Your task to perform on an android device: turn off notifications in google photos Image 0: 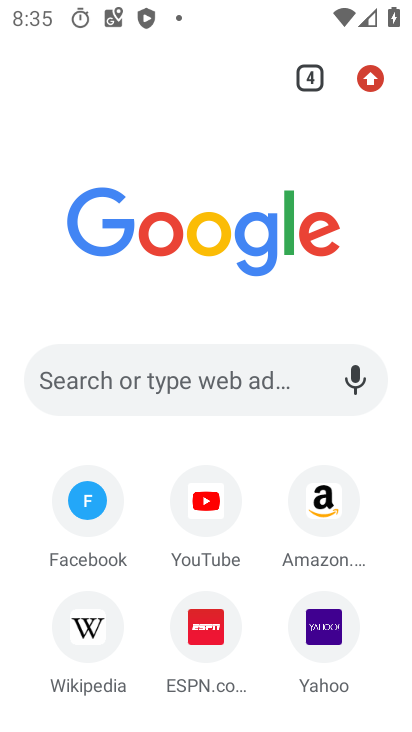
Step 0: press home button
Your task to perform on an android device: turn off notifications in google photos Image 1: 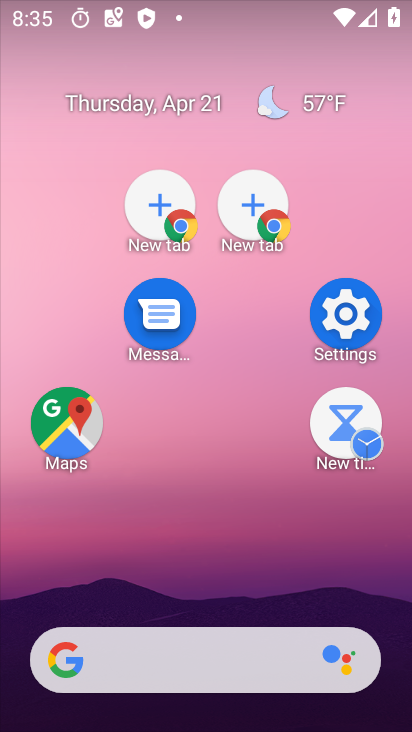
Step 1: drag from (304, 655) to (89, 15)
Your task to perform on an android device: turn off notifications in google photos Image 2: 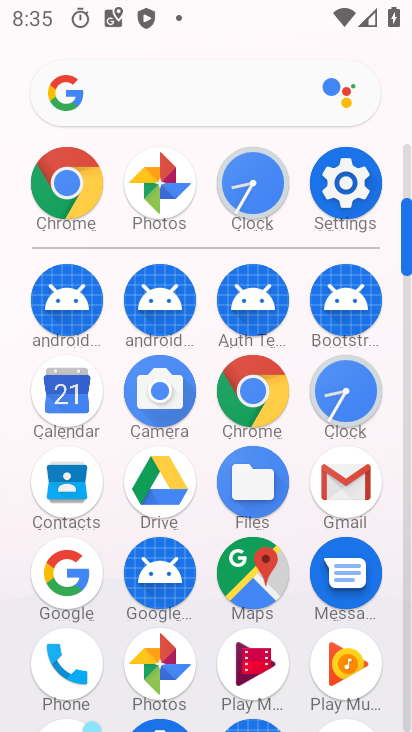
Step 2: click (158, 661)
Your task to perform on an android device: turn off notifications in google photos Image 3: 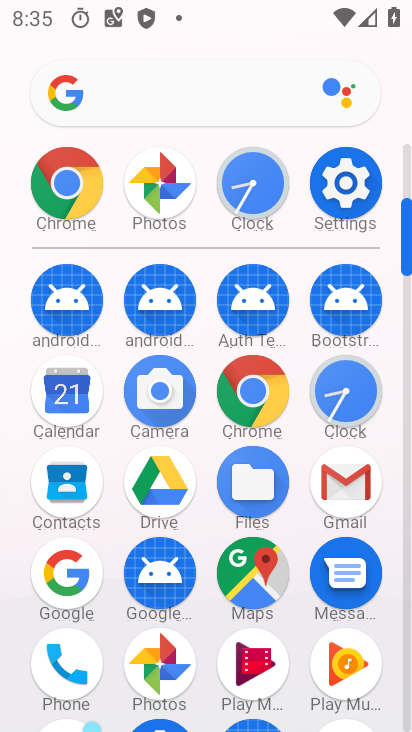
Step 3: click (158, 661)
Your task to perform on an android device: turn off notifications in google photos Image 4: 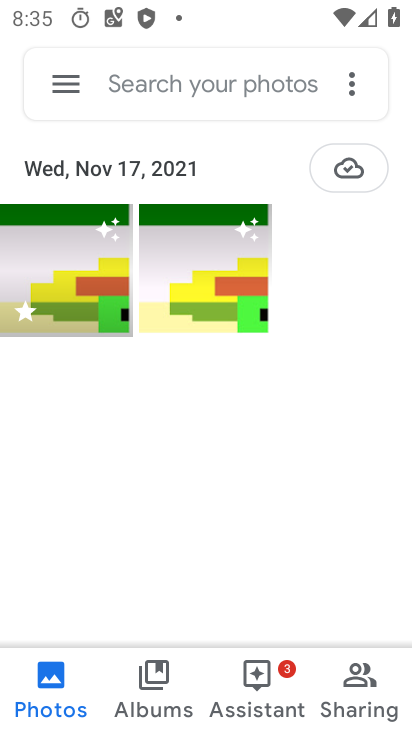
Step 4: click (106, 241)
Your task to perform on an android device: turn off notifications in google photos Image 5: 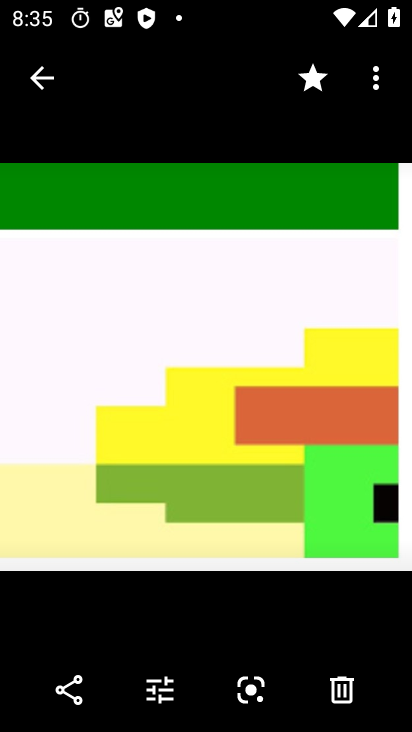
Step 5: click (195, 267)
Your task to perform on an android device: turn off notifications in google photos Image 6: 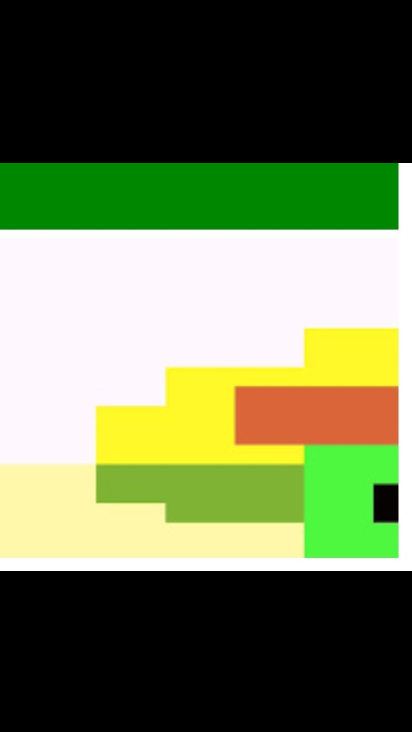
Step 6: drag from (218, 673) to (233, 480)
Your task to perform on an android device: turn off notifications in google photos Image 7: 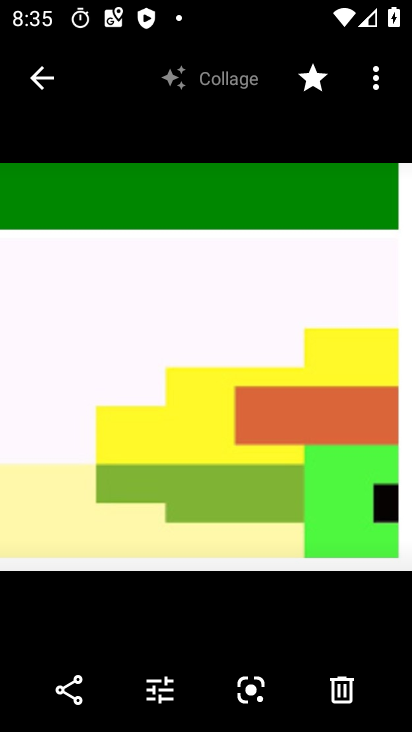
Step 7: press back button
Your task to perform on an android device: turn off notifications in google photos Image 8: 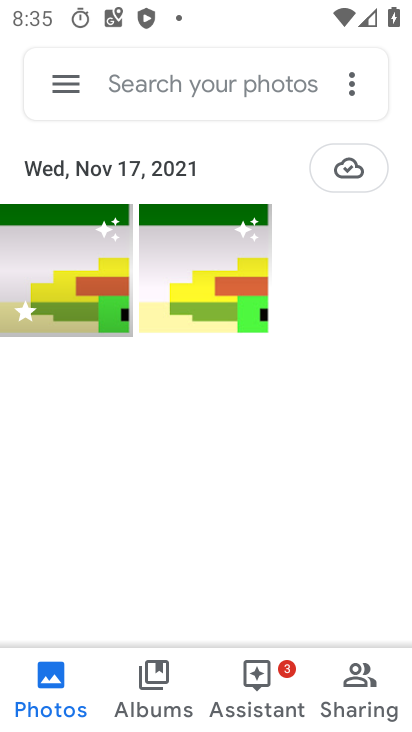
Step 8: drag from (59, 75) to (90, 16)
Your task to perform on an android device: turn off notifications in google photos Image 9: 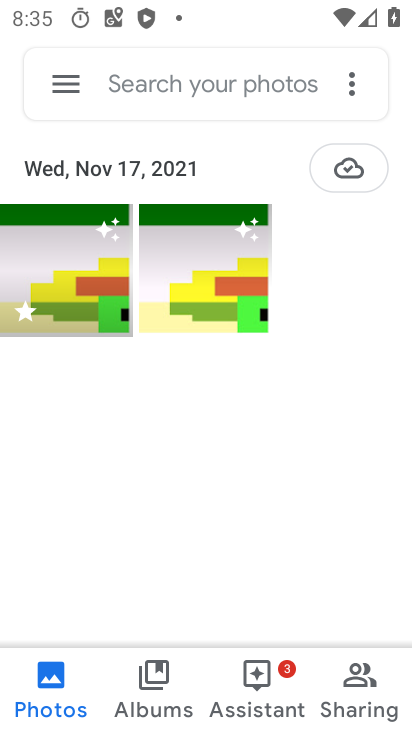
Step 9: click (66, 80)
Your task to perform on an android device: turn off notifications in google photos Image 10: 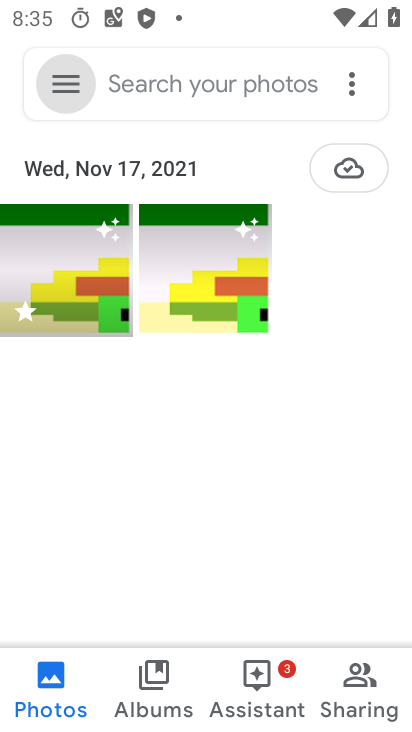
Step 10: click (66, 82)
Your task to perform on an android device: turn off notifications in google photos Image 11: 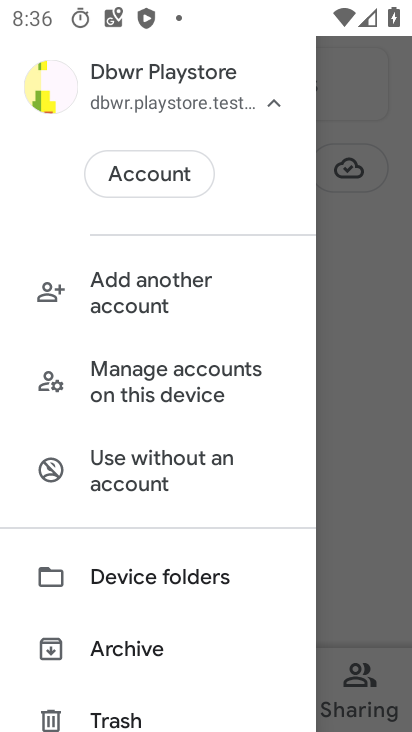
Step 11: drag from (160, 610) to (130, 294)
Your task to perform on an android device: turn off notifications in google photos Image 12: 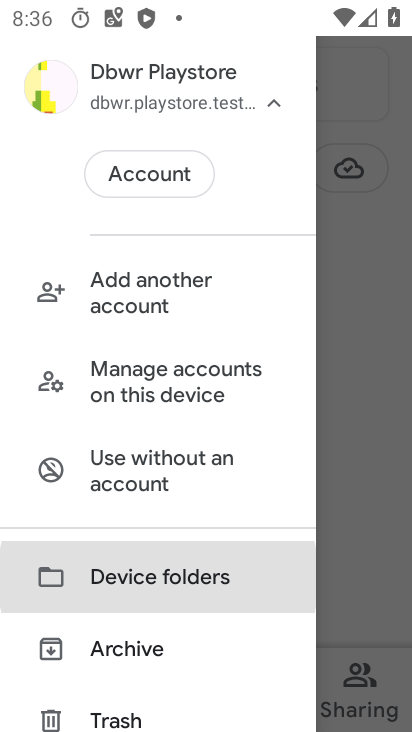
Step 12: drag from (175, 478) to (151, 150)
Your task to perform on an android device: turn off notifications in google photos Image 13: 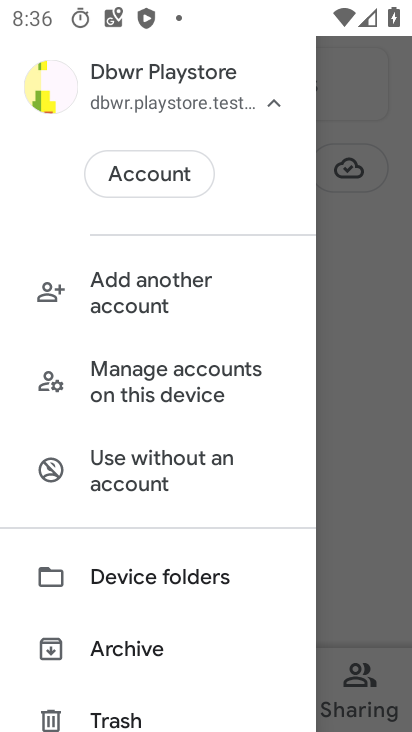
Step 13: drag from (155, 606) to (98, 181)
Your task to perform on an android device: turn off notifications in google photos Image 14: 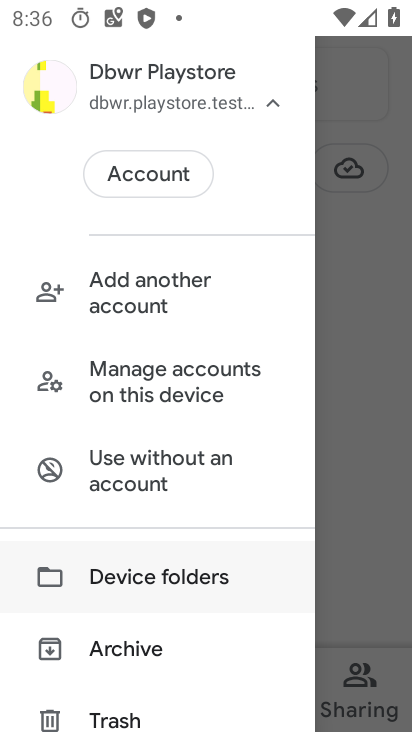
Step 14: drag from (66, 206) to (60, 79)
Your task to perform on an android device: turn off notifications in google photos Image 15: 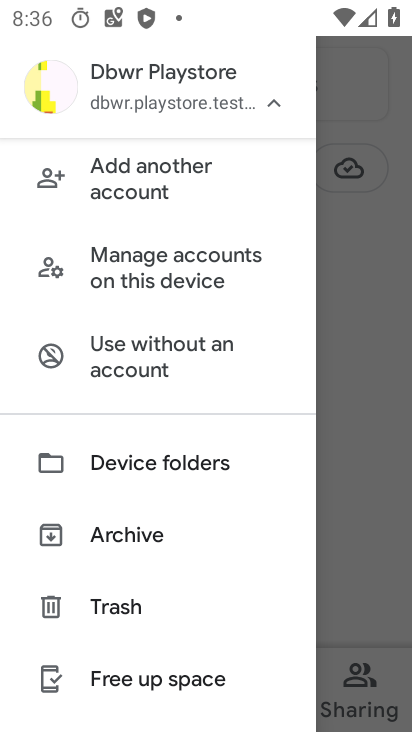
Step 15: drag from (142, 484) to (144, 229)
Your task to perform on an android device: turn off notifications in google photos Image 16: 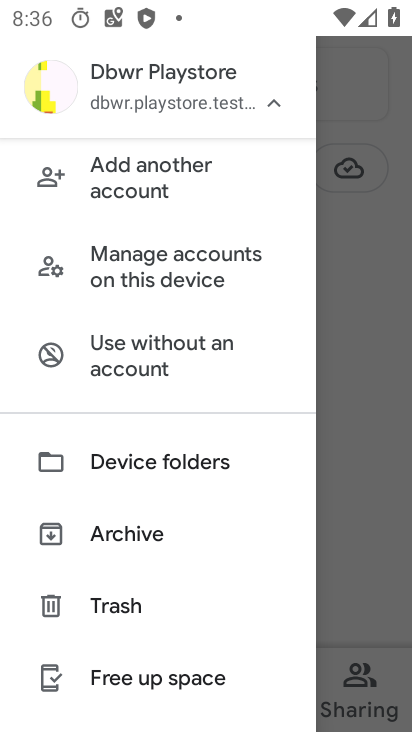
Step 16: drag from (222, 584) to (207, 214)
Your task to perform on an android device: turn off notifications in google photos Image 17: 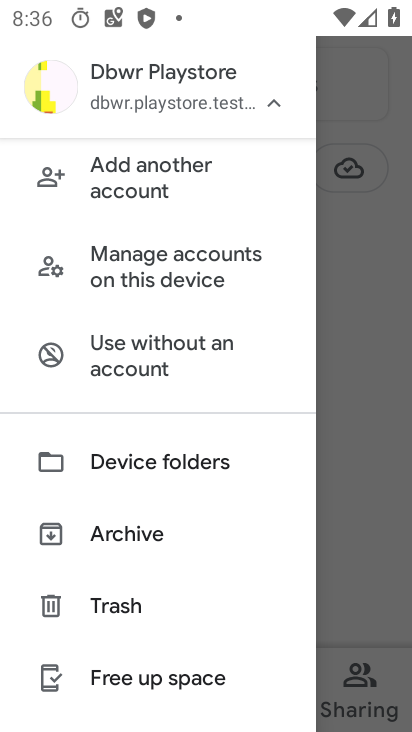
Step 17: drag from (176, 494) to (217, 216)
Your task to perform on an android device: turn off notifications in google photos Image 18: 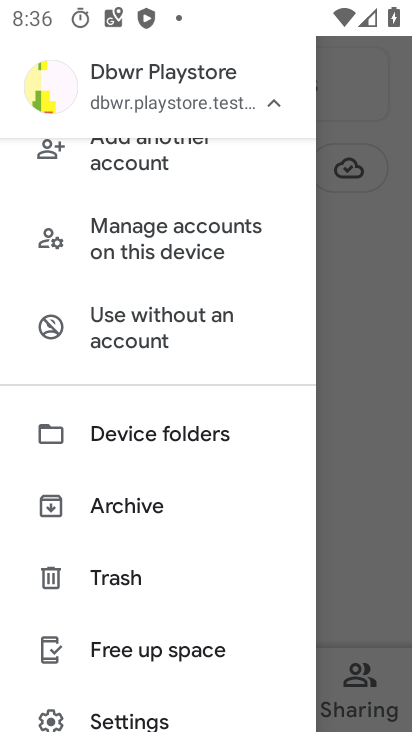
Step 18: drag from (141, 288) to (186, 523)
Your task to perform on an android device: turn off notifications in google photos Image 19: 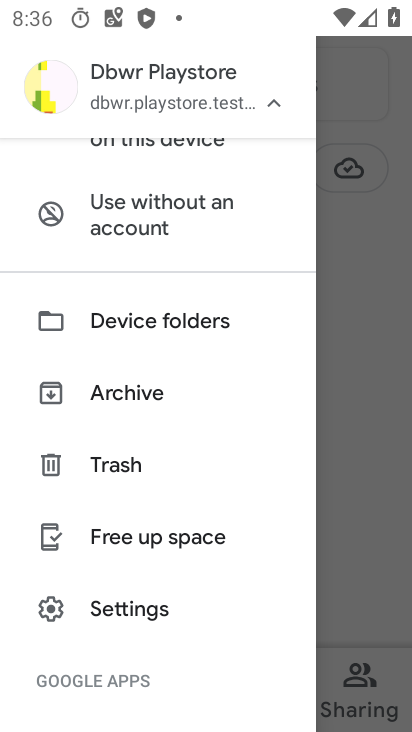
Step 19: drag from (140, 379) to (169, 501)
Your task to perform on an android device: turn off notifications in google photos Image 20: 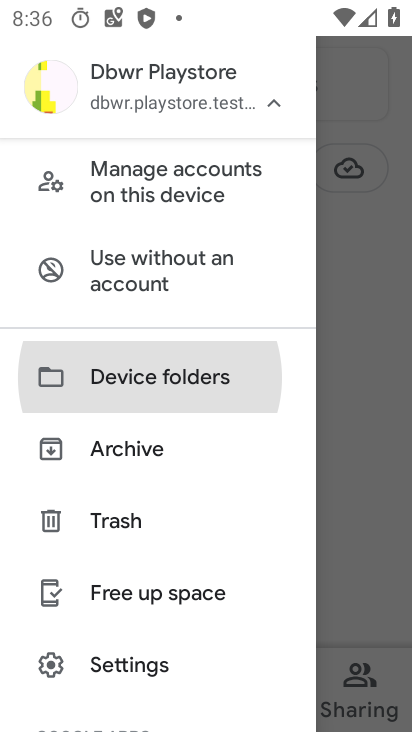
Step 20: drag from (221, 578) to (125, 486)
Your task to perform on an android device: turn off notifications in google photos Image 21: 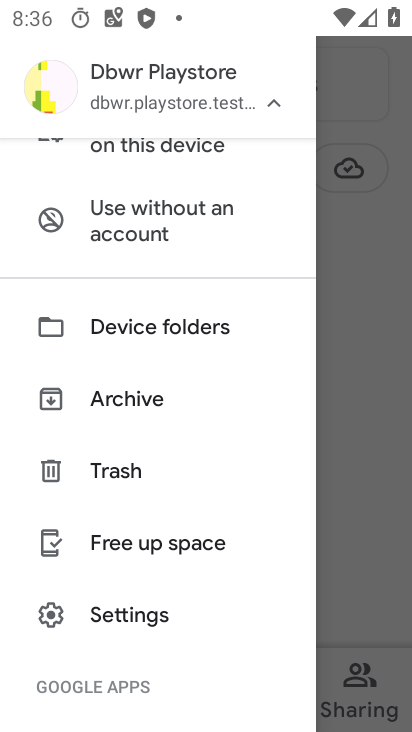
Step 21: click (119, 613)
Your task to perform on an android device: turn off notifications in google photos Image 22: 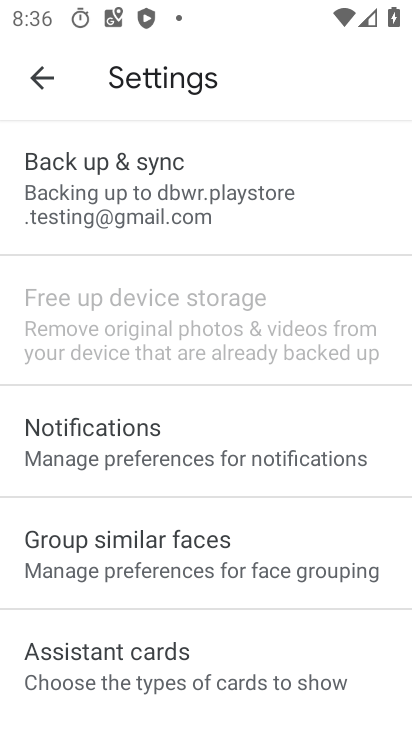
Step 22: click (108, 202)
Your task to perform on an android device: turn off notifications in google photos Image 23: 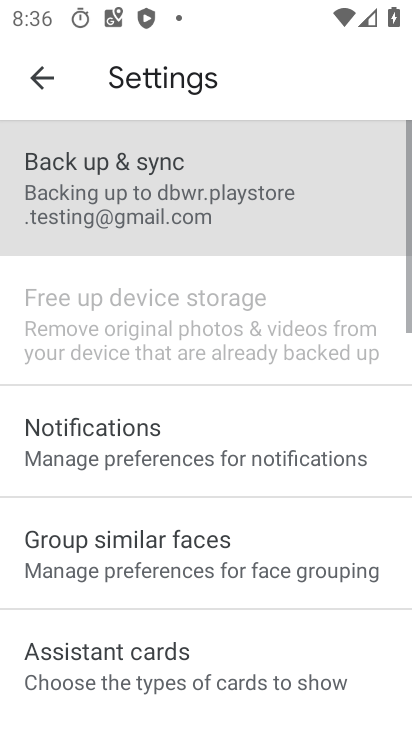
Step 23: click (108, 202)
Your task to perform on an android device: turn off notifications in google photos Image 24: 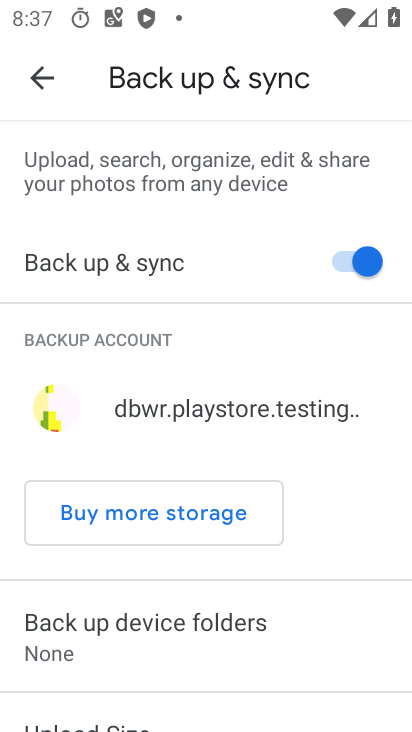
Step 24: click (32, 75)
Your task to perform on an android device: turn off notifications in google photos Image 25: 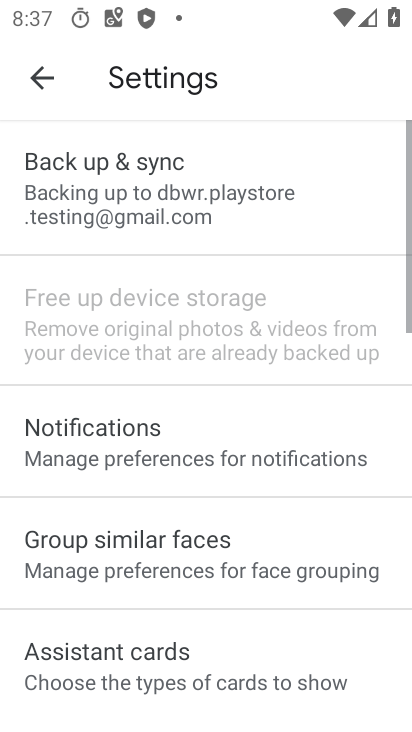
Step 25: click (121, 201)
Your task to perform on an android device: turn off notifications in google photos Image 26: 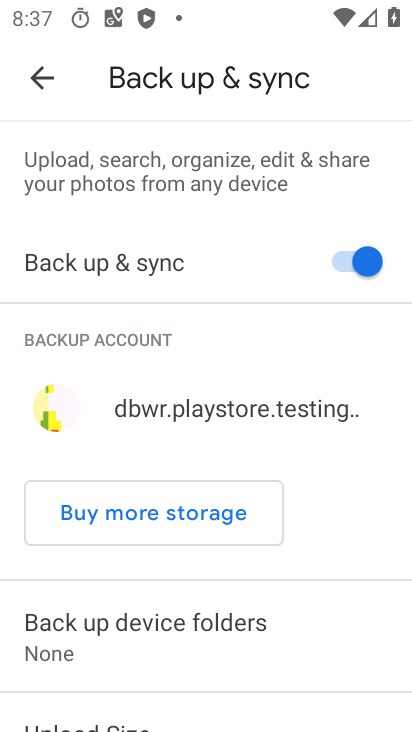
Step 26: click (38, 76)
Your task to perform on an android device: turn off notifications in google photos Image 27: 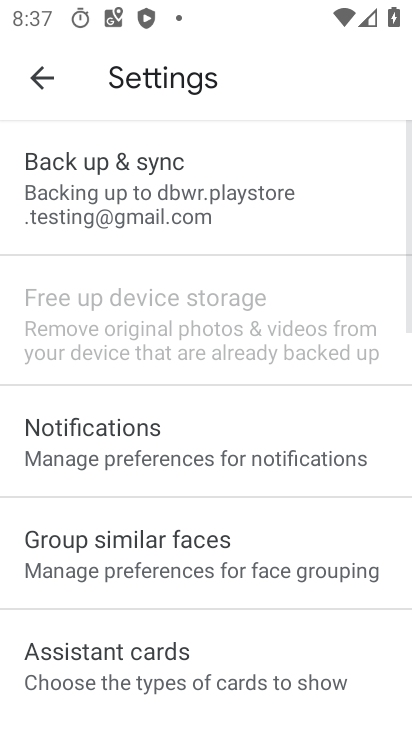
Step 27: click (123, 434)
Your task to perform on an android device: turn off notifications in google photos Image 28: 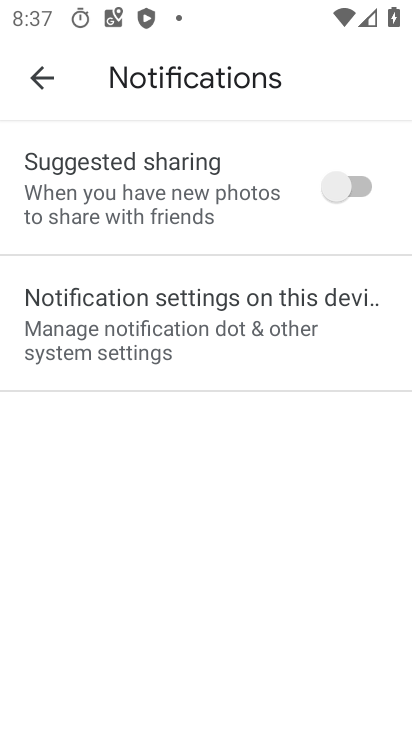
Step 28: click (105, 334)
Your task to perform on an android device: turn off notifications in google photos Image 29: 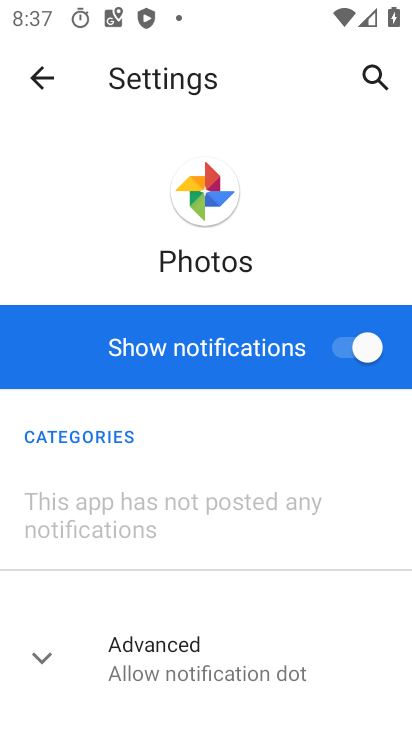
Step 29: drag from (183, 646) to (140, 338)
Your task to perform on an android device: turn off notifications in google photos Image 30: 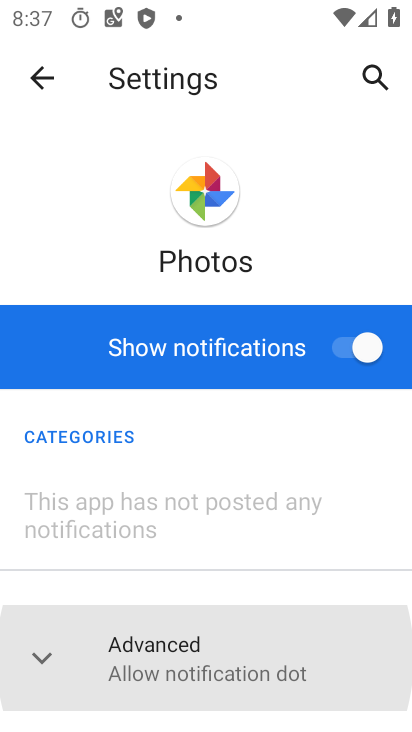
Step 30: drag from (168, 587) to (209, 274)
Your task to perform on an android device: turn off notifications in google photos Image 31: 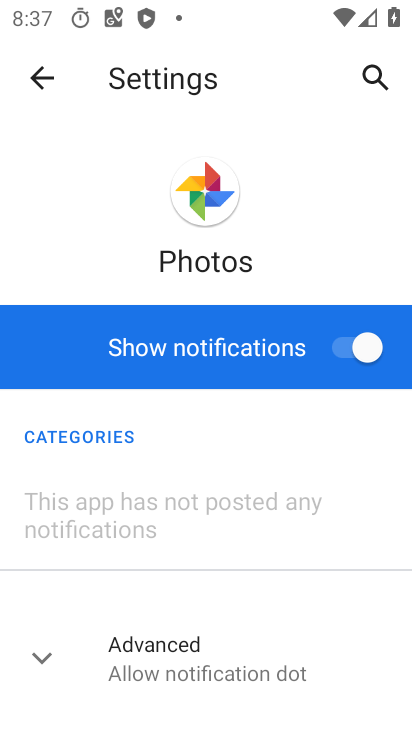
Step 31: drag from (221, 666) to (232, 350)
Your task to perform on an android device: turn off notifications in google photos Image 32: 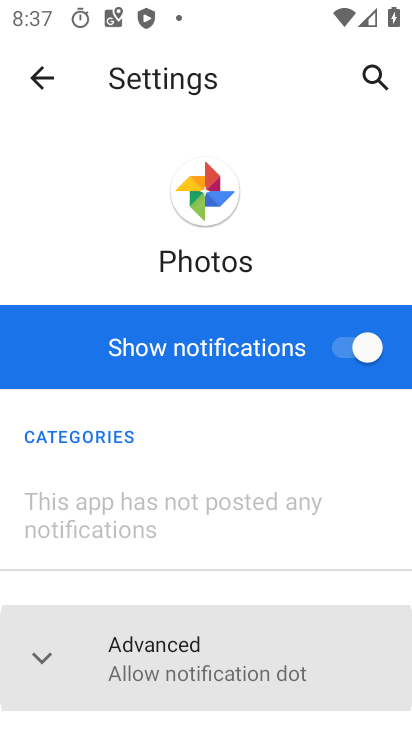
Step 32: drag from (221, 571) to (242, 264)
Your task to perform on an android device: turn off notifications in google photos Image 33: 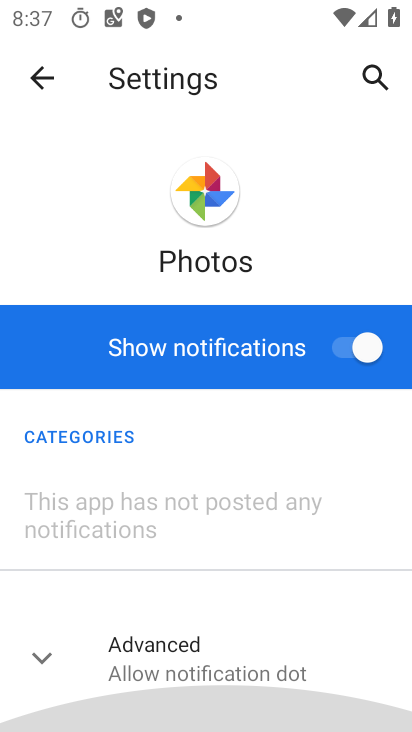
Step 33: drag from (265, 602) to (259, 413)
Your task to perform on an android device: turn off notifications in google photos Image 34: 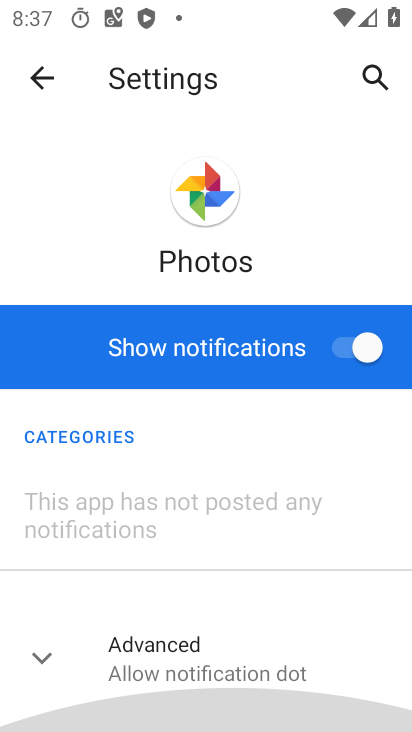
Step 34: drag from (145, 577) to (145, 323)
Your task to perform on an android device: turn off notifications in google photos Image 35: 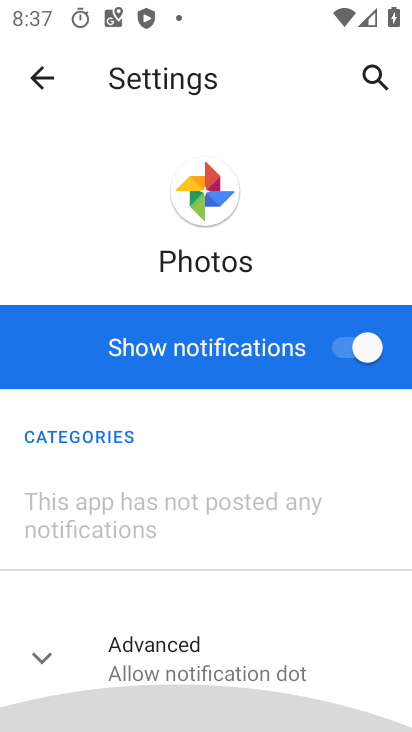
Step 35: drag from (165, 475) to (146, 292)
Your task to perform on an android device: turn off notifications in google photos Image 36: 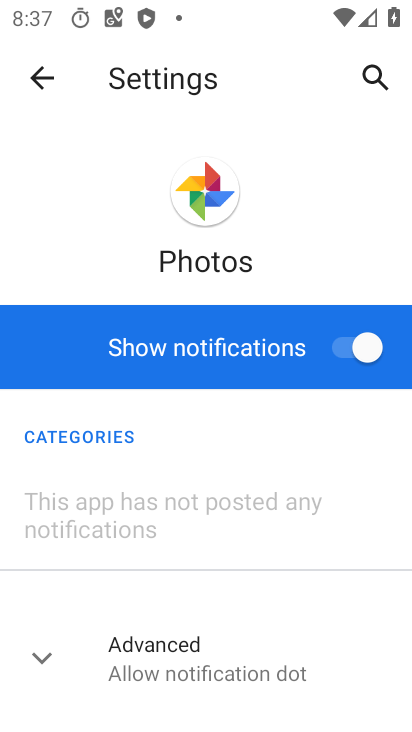
Step 36: drag from (126, 458) to (94, 224)
Your task to perform on an android device: turn off notifications in google photos Image 37: 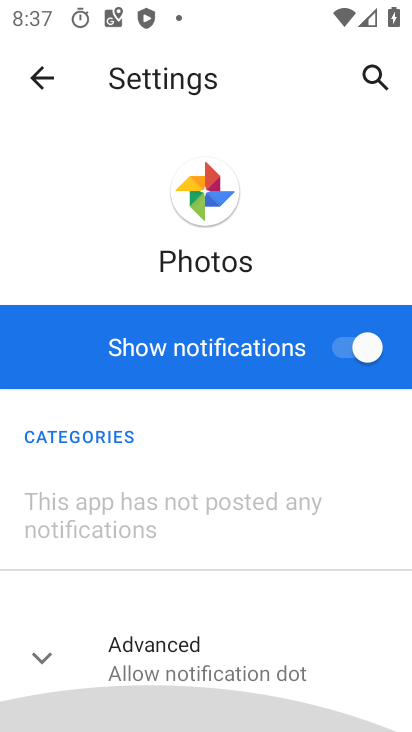
Step 37: drag from (146, 577) to (109, 268)
Your task to perform on an android device: turn off notifications in google photos Image 38: 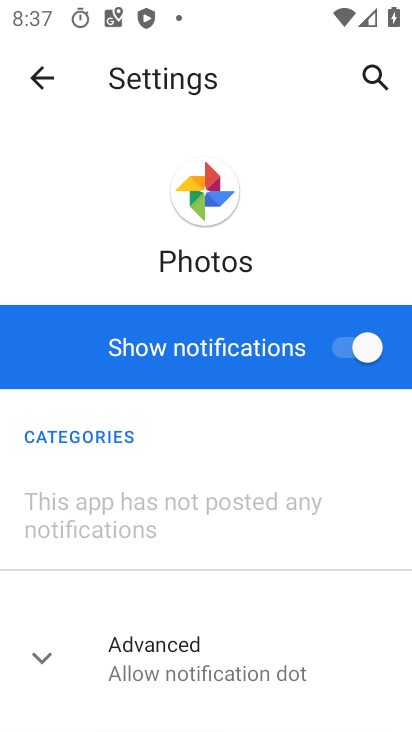
Step 38: drag from (202, 589) to (155, 256)
Your task to perform on an android device: turn off notifications in google photos Image 39: 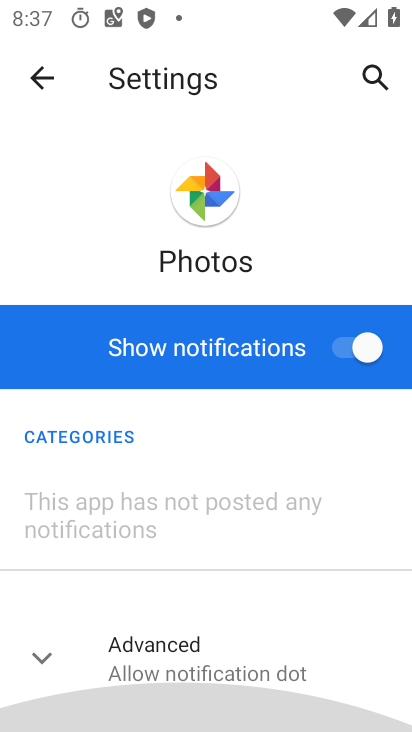
Step 39: drag from (171, 627) to (142, 283)
Your task to perform on an android device: turn off notifications in google photos Image 40: 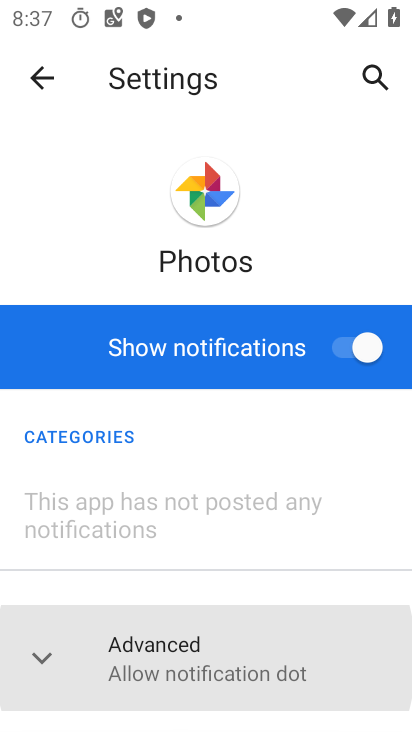
Step 40: drag from (173, 564) to (200, 286)
Your task to perform on an android device: turn off notifications in google photos Image 41: 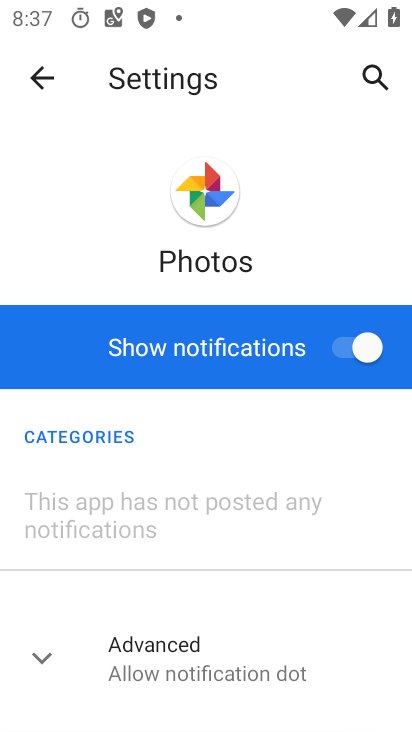
Step 41: drag from (176, 606) to (111, 264)
Your task to perform on an android device: turn off notifications in google photos Image 42: 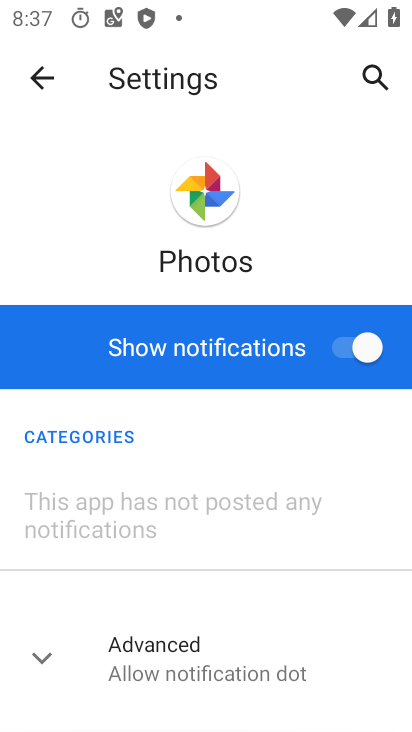
Step 42: click (167, 652)
Your task to perform on an android device: turn off notifications in google photos Image 43: 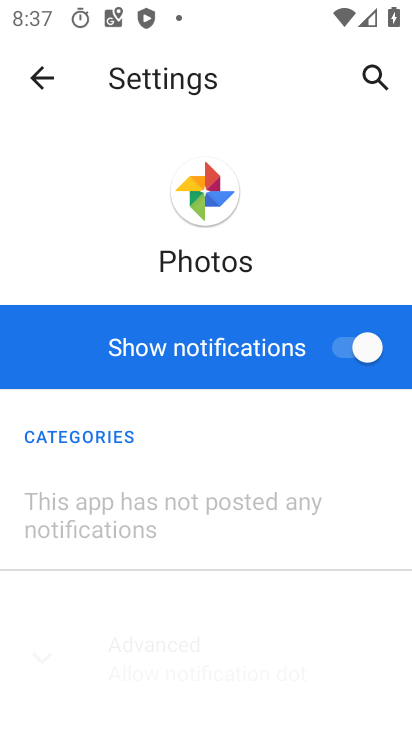
Step 43: click (39, 98)
Your task to perform on an android device: turn off notifications in google photos Image 44: 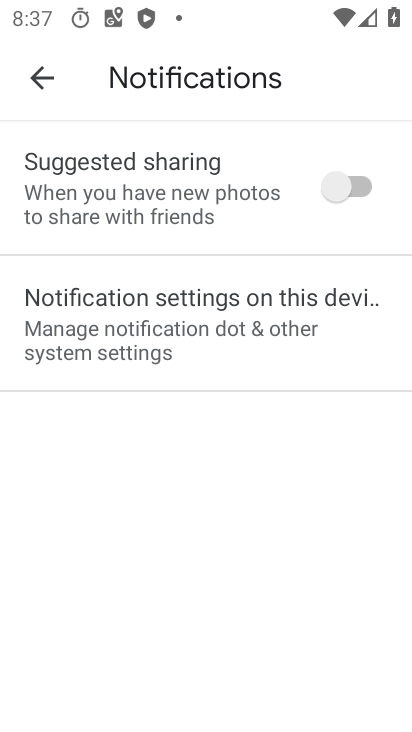
Step 44: click (43, 75)
Your task to perform on an android device: turn off notifications in google photos Image 45: 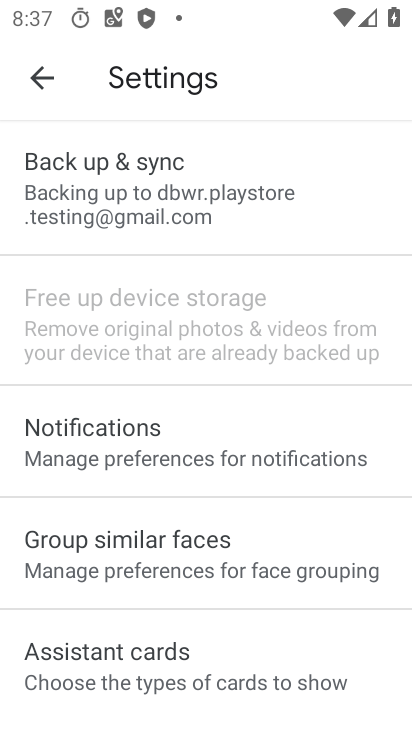
Step 45: drag from (72, 412) to (64, 144)
Your task to perform on an android device: turn off notifications in google photos Image 46: 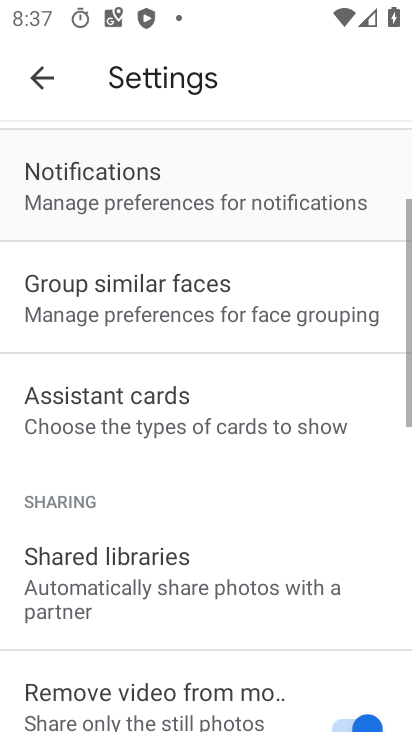
Step 46: drag from (170, 409) to (185, 32)
Your task to perform on an android device: turn off notifications in google photos Image 47: 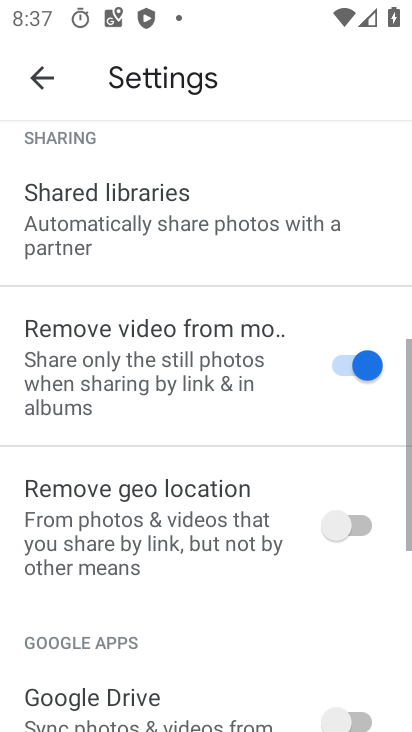
Step 47: drag from (179, 531) to (184, 94)
Your task to perform on an android device: turn off notifications in google photos Image 48: 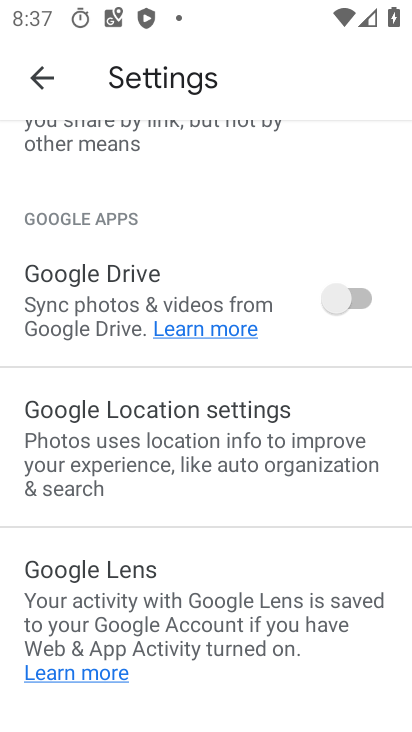
Step 48: drag from (189, 416) to (290, 599)
Your task to perform on an android device: turn off notifications in google photos Image 49: 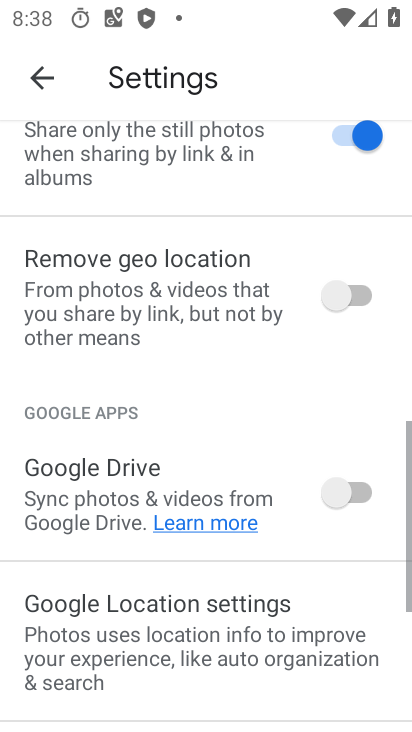
Step 49: drag from (190, 328) to (277, 552)
Your task to perform on an android device: turn off notifications in google photos Image 50: 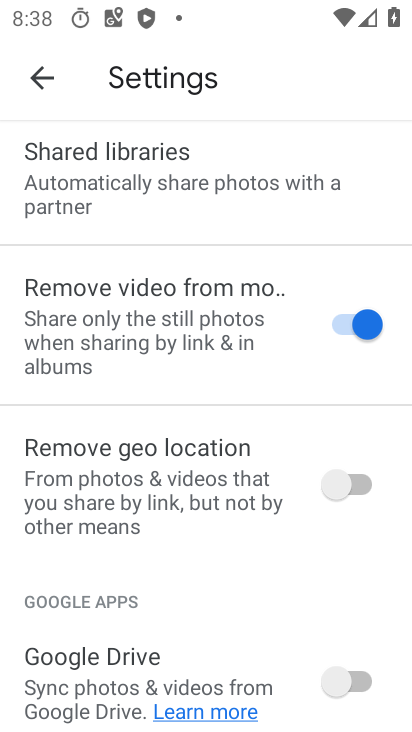
Step 50: drag from (124, 219) to (240, 606)
Your task to perform on an android device: turn off notifications in google photos Image 51: 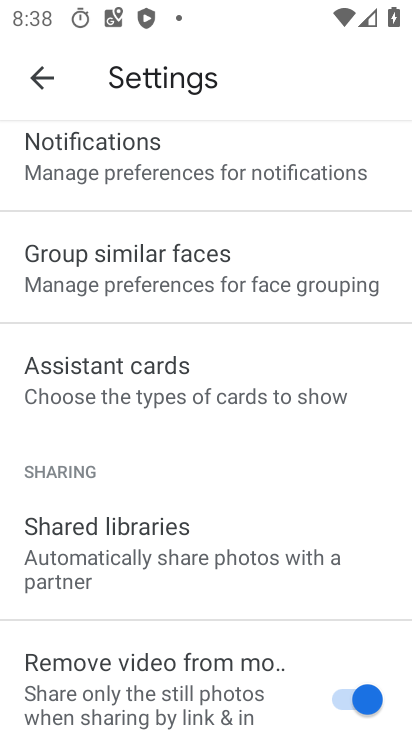
Step 51: drag from (154, 232) to (220, 548)
Your task to perform on an android device: turn off notifications in google photos Image 52: 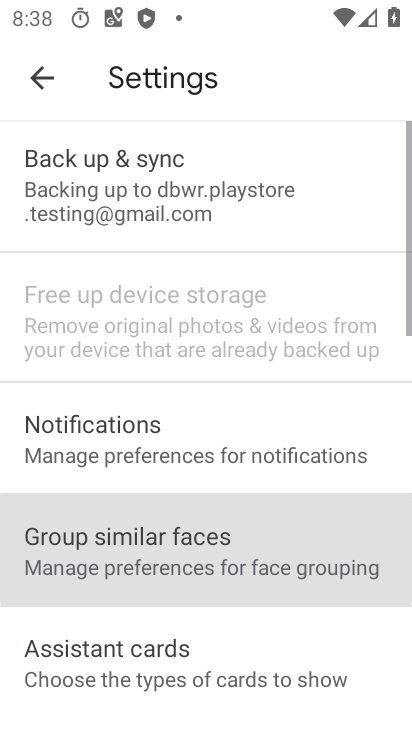
Step 52: drag from (205, 303) to (251, 548)
Your task to perform on an android device: turn off notifications in google photos Image 53: 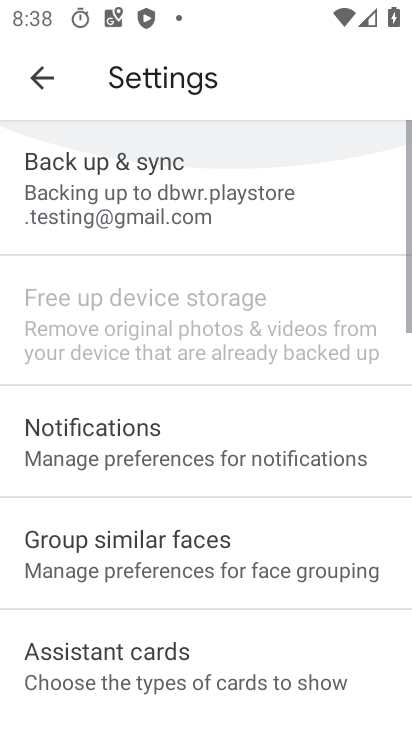
Step 53: drag from (216, 427) to (243, 566)
Your task to perform on an android device: turn off notifications in google photos Image 54: 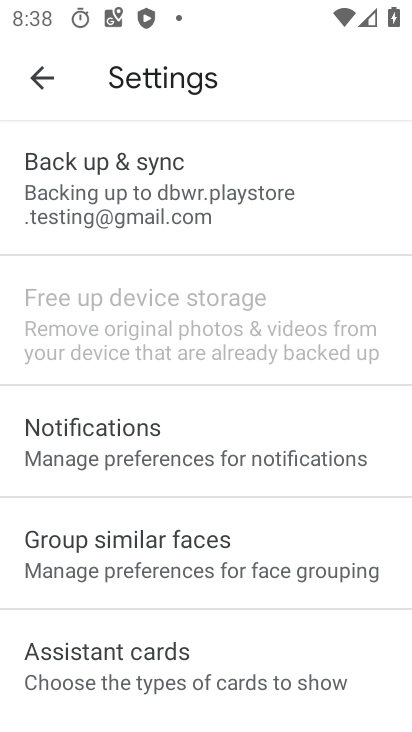
Step 54: click (103, 430)
Your task to perform on an android device: turn off notifications in google photos Image 55: 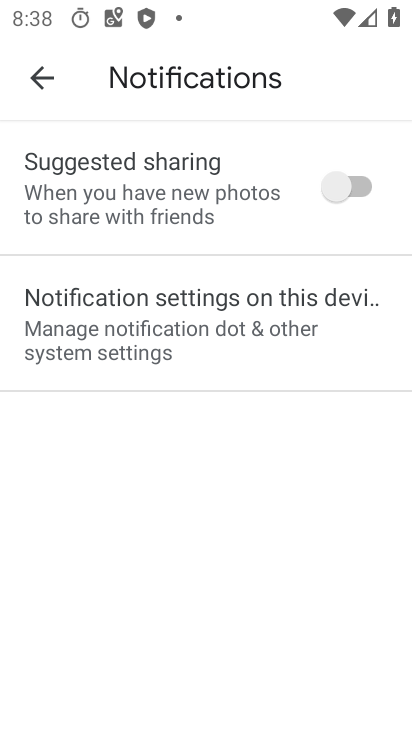
Step 55: click (155, 299)
Your task to perform on an android device: turn off notifications in google photos Image 56: 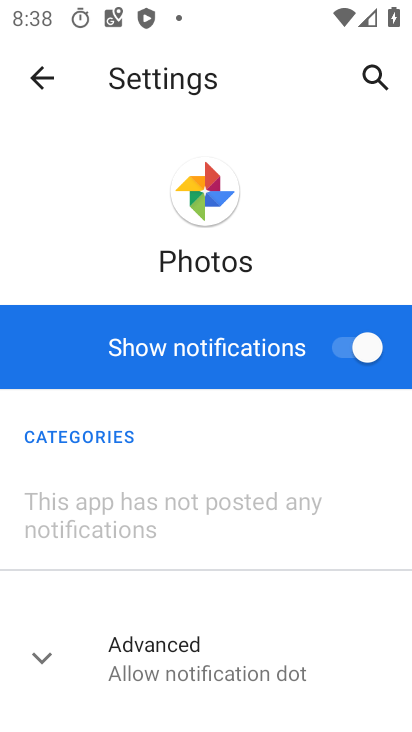
Step 56: click (372, 346)
Your task to perform on an android device: turn off notifications in google photos Image 57: 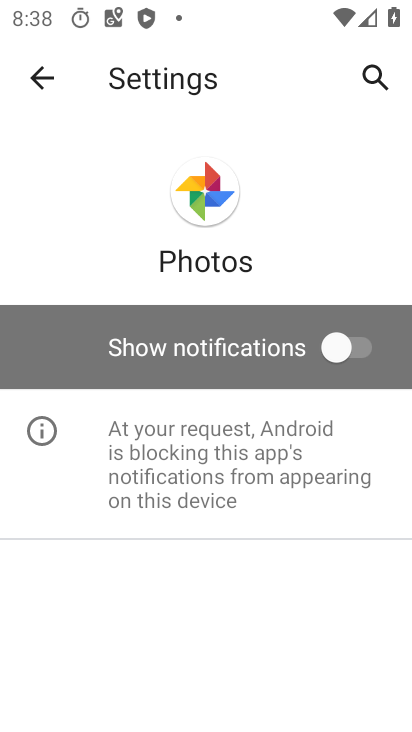
Step 57: click (42, 72)
Your task to perform on an android device: turn off notifications in google photos Image 58: 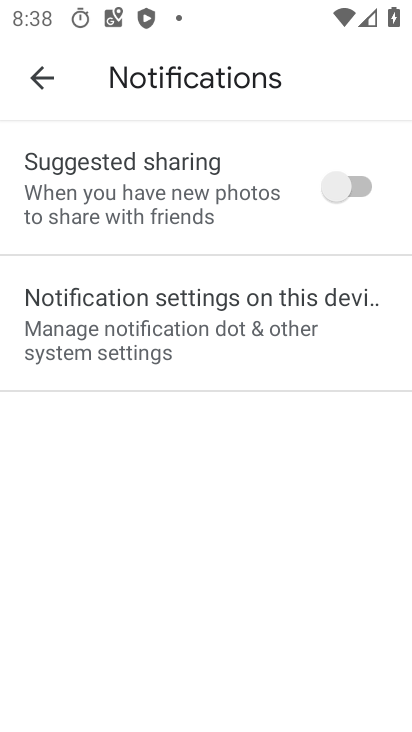
Step 58: click (25, 75)
Your task to perform on an android device: turn off notifications in google photos Image 59: 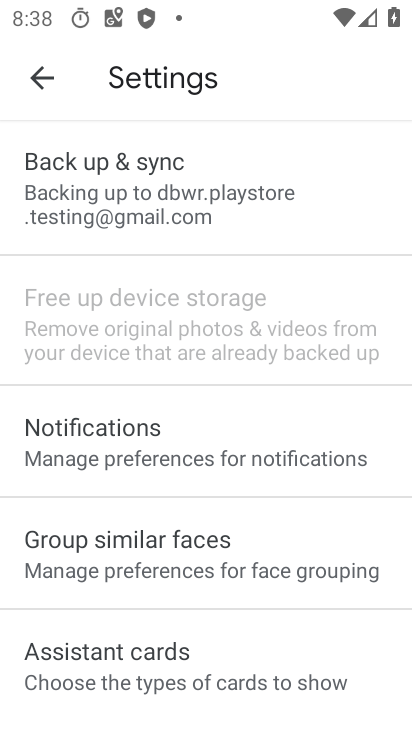
Step 59: click (32, 75)
Your task to perform on an android device: turn off notifications in google photos Image 60: 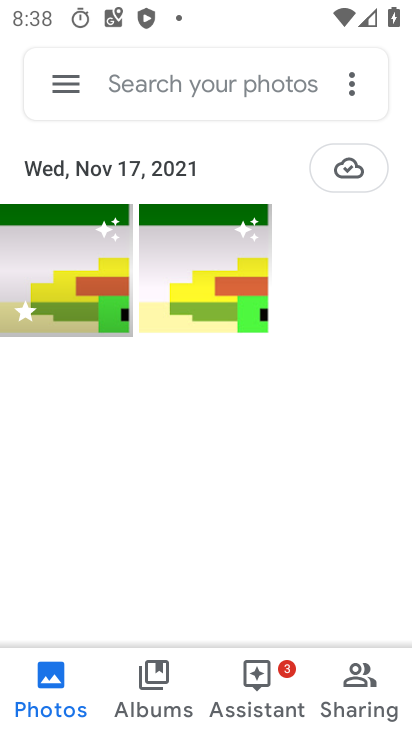
Step 60: click (58, 79)
Your task to perform on an android device: turn off notifications in google photos Image 61: 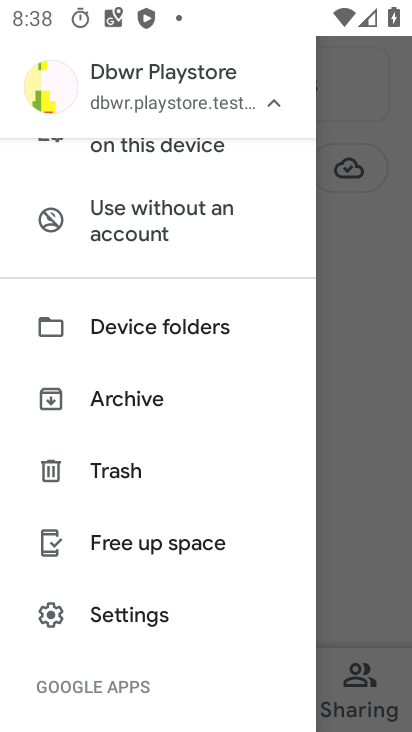
Step 61: click (124, 610)
Your task to perform on an android device: turn off notifications in google photos Image 62: 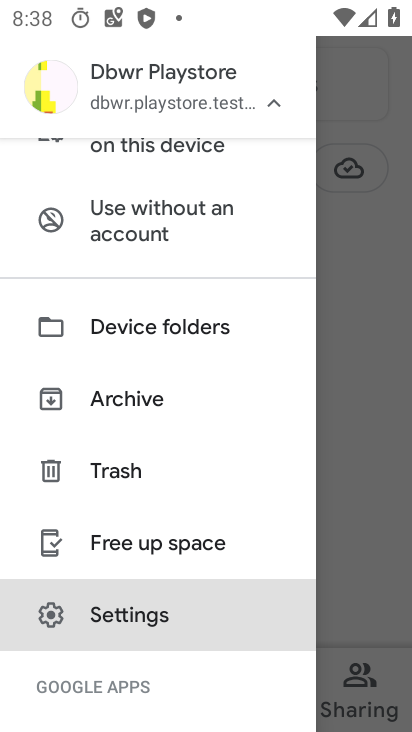
Step 62: click (124, 602)
Your task to perform on an android device: turn off notifications in google photos Image 63: 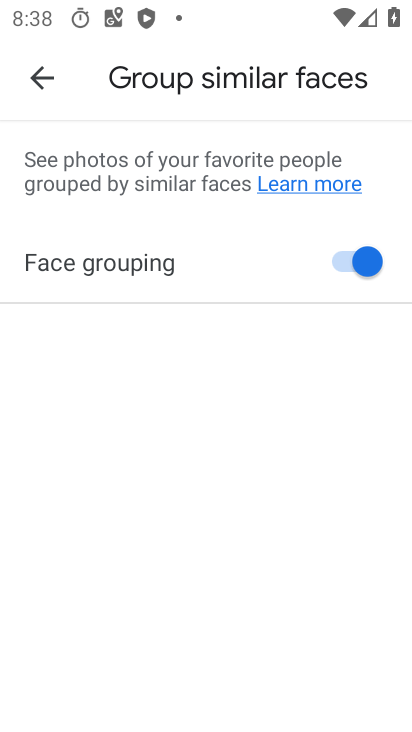
Step 63: click (34, 74)
Your task to perform on an android device: turn off notifications in google photos Image 64: 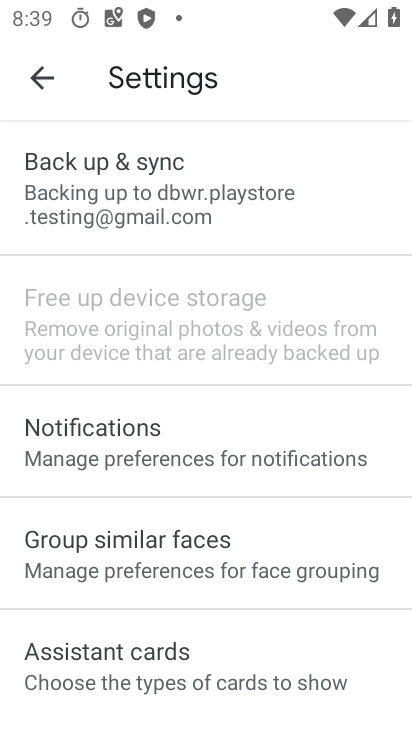
Step 64: click (133, 435)
Your task to perform on an android device: turn off notifications in google photos Image 65: 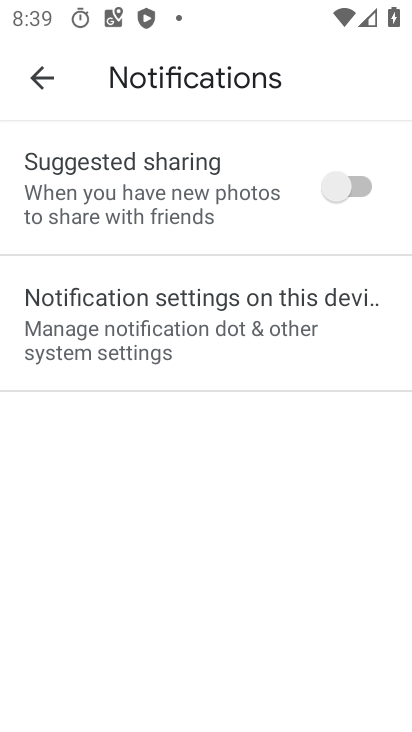
Step 65: click (130, 306)
Your task to perform on an android device: turn off notifications in google photos Image 66: 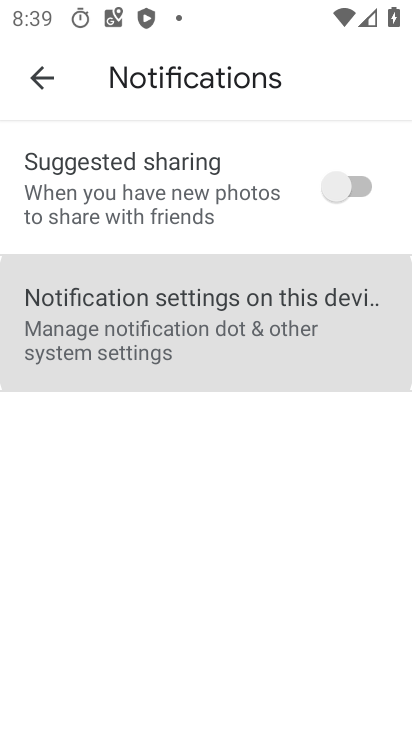
Step 66: click (137, 308)
Your task to perform on an android device: turn off notifications in google photos Image 67: 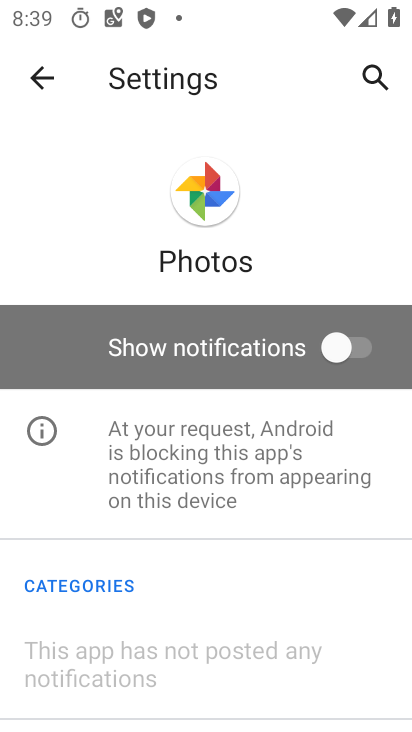
Step 67: task complete